Your task to perform on an android device: Is it going to rain tomorrow? Image 0: 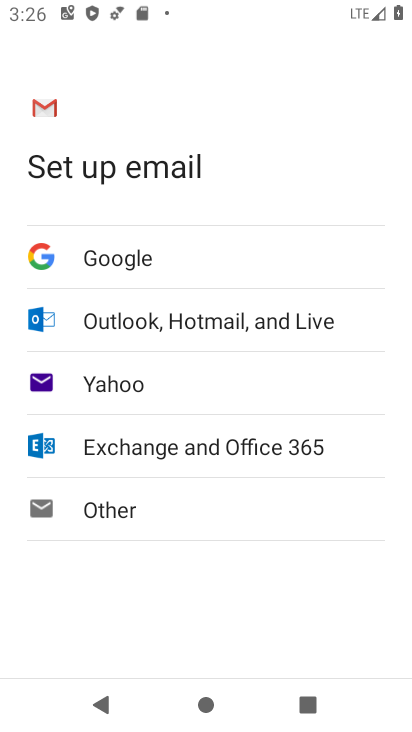
Step 0: press home button
Your task to perform on an android device: Is it going to rain tomorrow? Image 1: 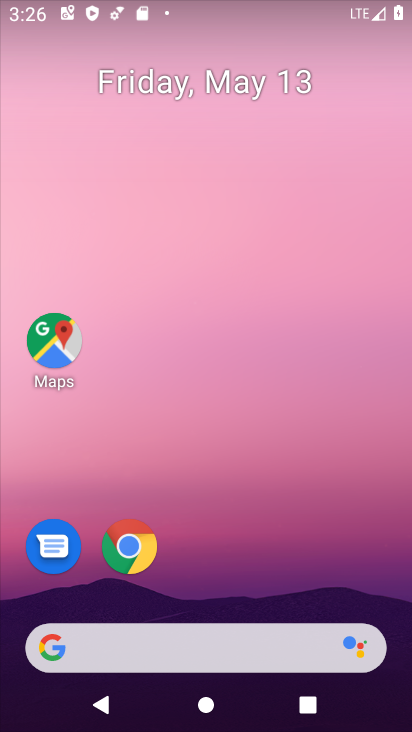
Step 1: click (189, 633)
Your task to perform on an android device: Is it going to rain tomorrow? Image 2: 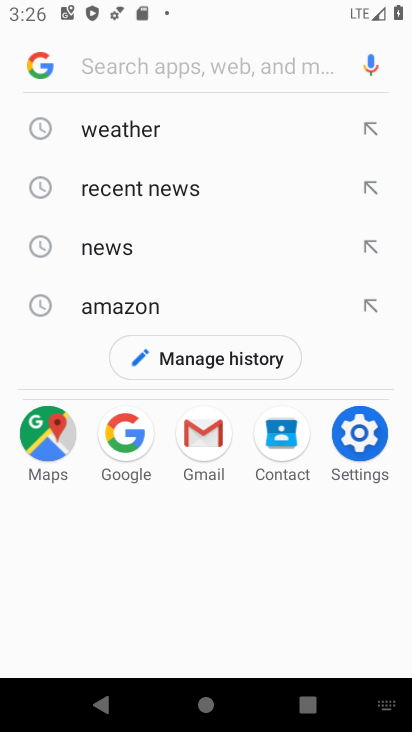
Step 2: click (138, 135)
Your task to perform on an android device: Is it going to rain tomorrow? Image 3: 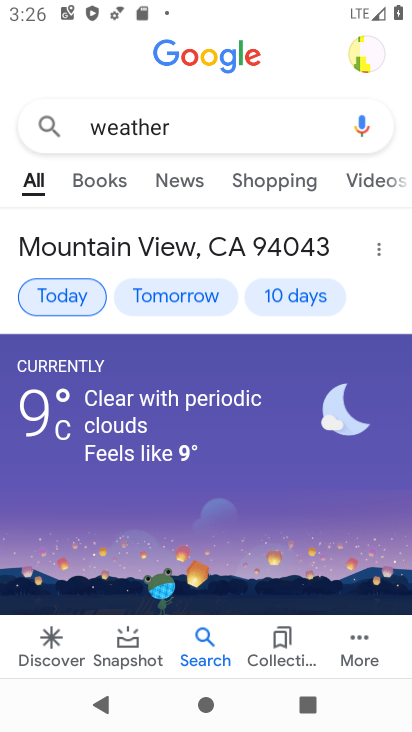
Step 3: task complete